Your task to perform on an android device: Open Maps and search for coffee Image 0: 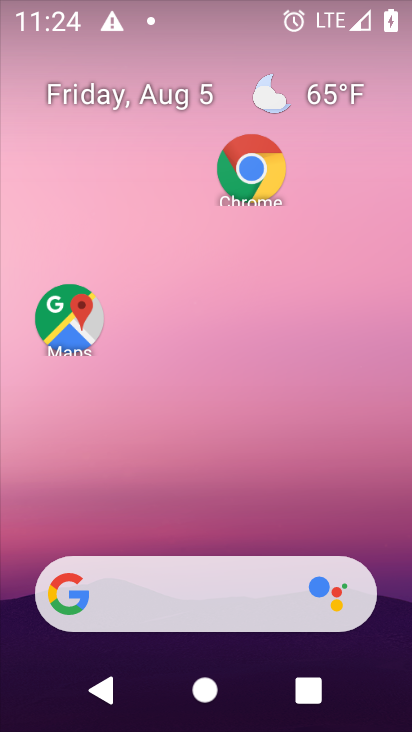
Step 0: task complete